Your task to perform on an android device: Search for sushi restaurants on Maps Image 0: 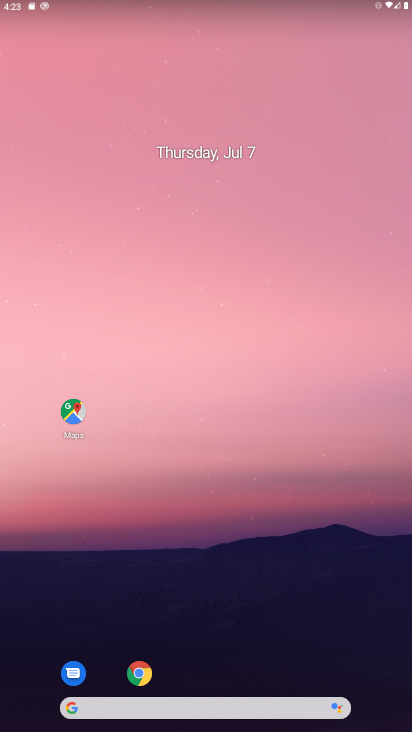
Step 0: drag from (229, 676) to (197, 5)
Your task to perform on an android device: Search for sushi restaurants on Maps Image 1: 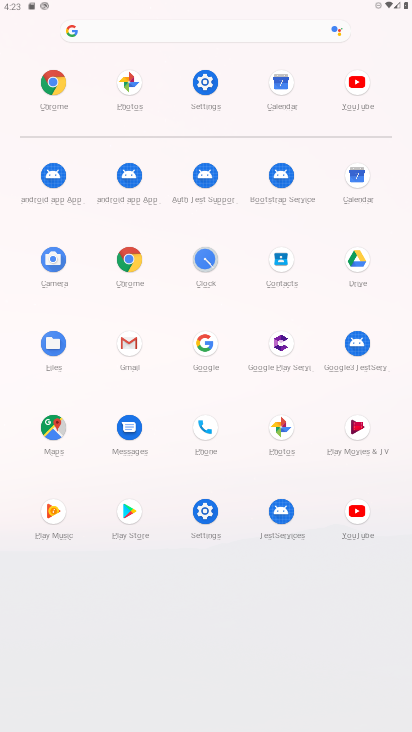
Step 1: click (47, 425)
Your task to perform on an android device: Search for sushi restaurants on Maps Image 2: 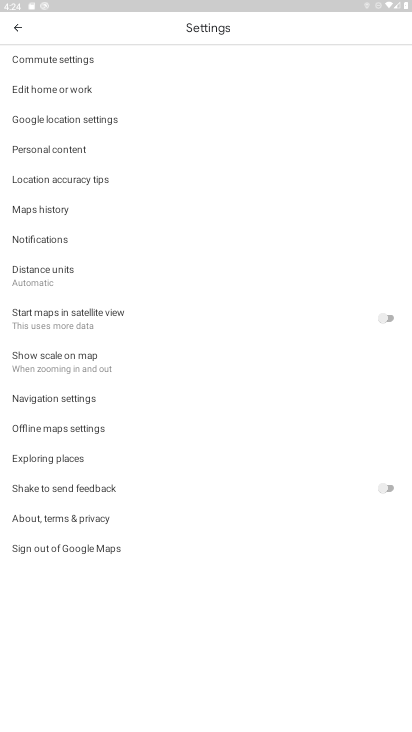
Step 2: click (14, 23)
Your task to perform on an android device: Search for sushi restaurants on Maps Image 3: 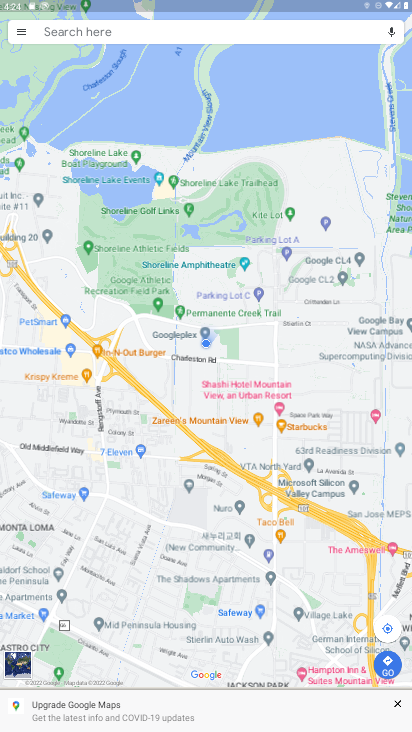
Step 3: click (95, 30)
Your task to perform on an android device: Search for sushi restaurants on Maps Image 4: 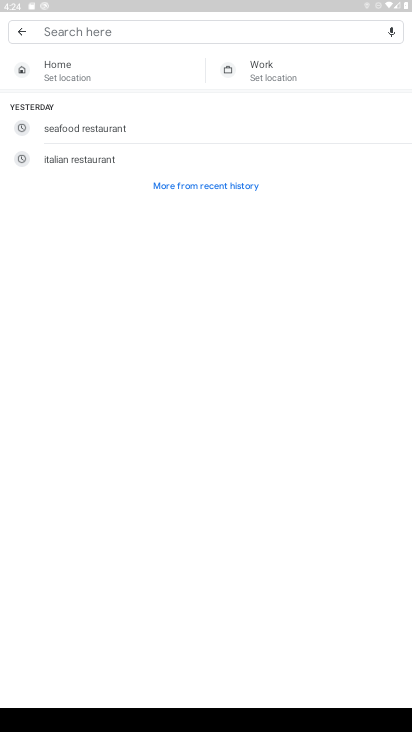
Step 4: type "sushi restaurant"
Your task to perform on an android device: Search for sushi restaurants on Maps Image 5: 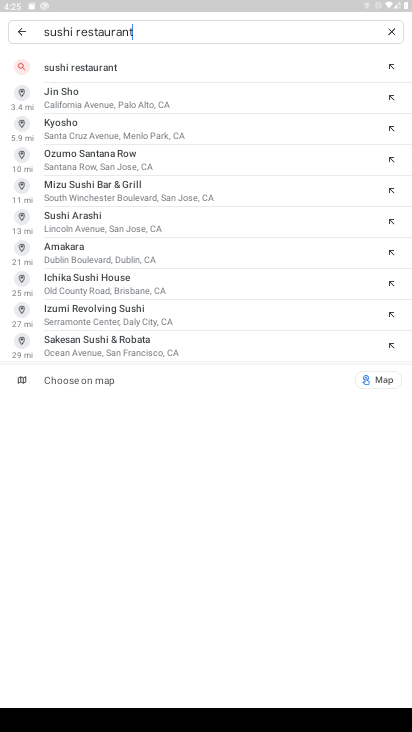
Step 5: click (108, 67)
Your task to perform on an android device: Search for sushi restaurants on Maps Image 6: 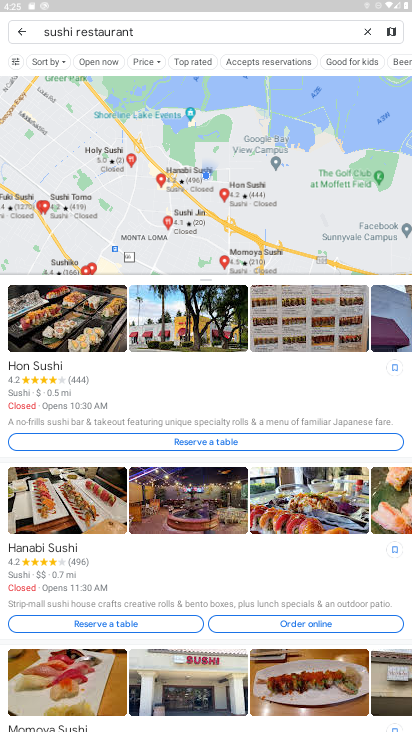
Step 6: task complete